Your task to perform on an android device: Go to eBay Image 0: 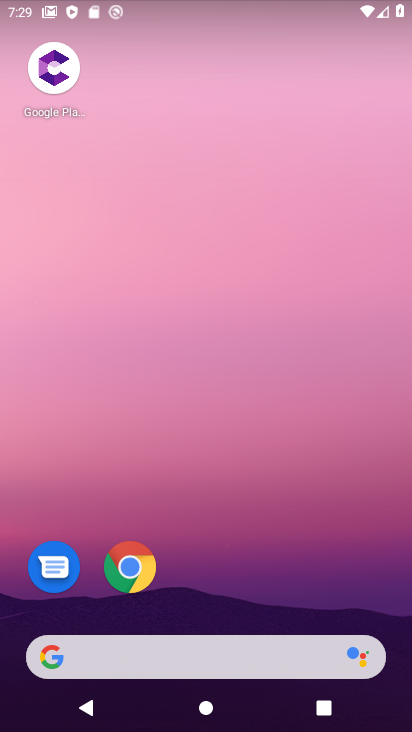
Step 0: click (125, 567)
Your task to perform on an android device: Go to eBay Image 1: 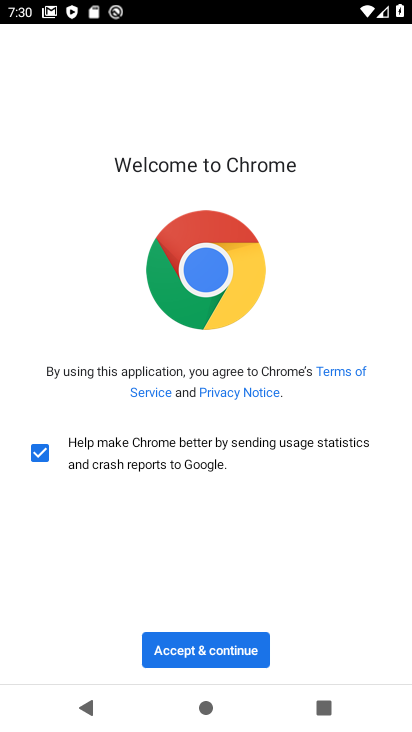
Step 1: click (195, 659)
Your task to perform on an android device: Go to eBay Image 2: 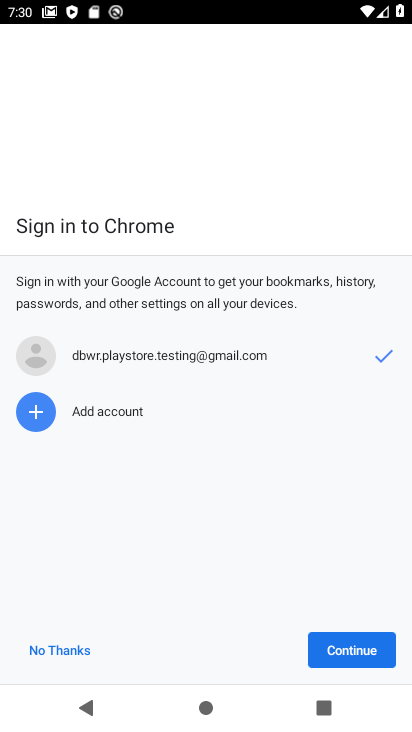
Step 2: click (351, 652)
Your task to perform on an android device: Go to eBay Image 3: 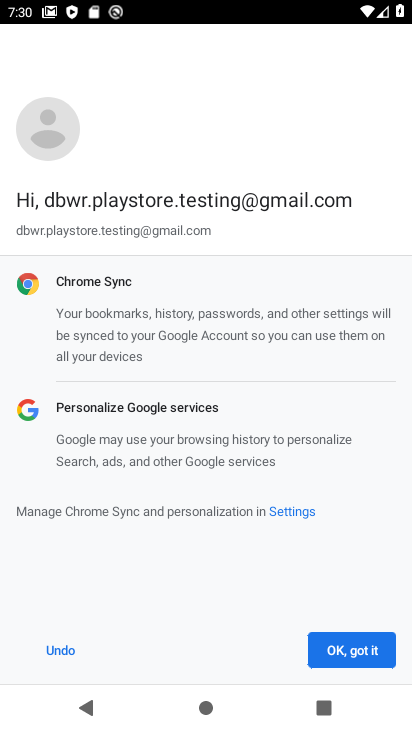
Step 3: click (351, 652)
Your task to perform on an android device: Go to eBay Image 4: 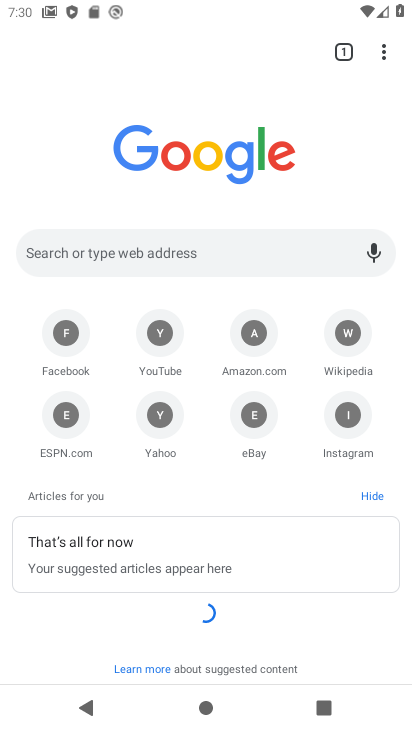
Step 4: click (232, 255)
Your task to perform on an android device: Go to eBay Image 5: 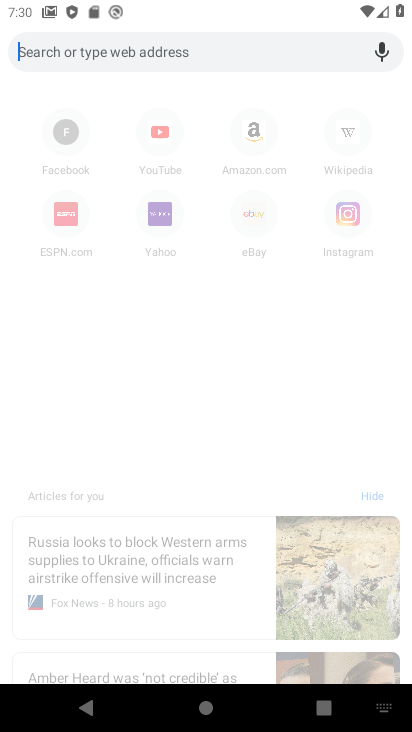
Step 5: type "eBay"
Your task to perform on an android device: Go to eBay Image 6: 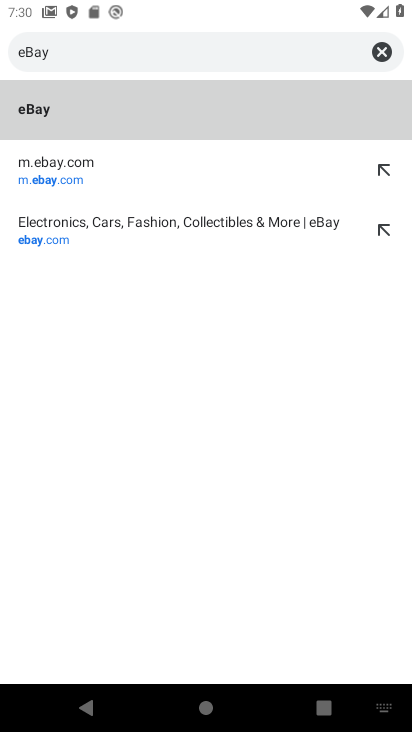
Step 6: click (81, 125)
Your task to perform on an android device: Go to eBay Image 7: 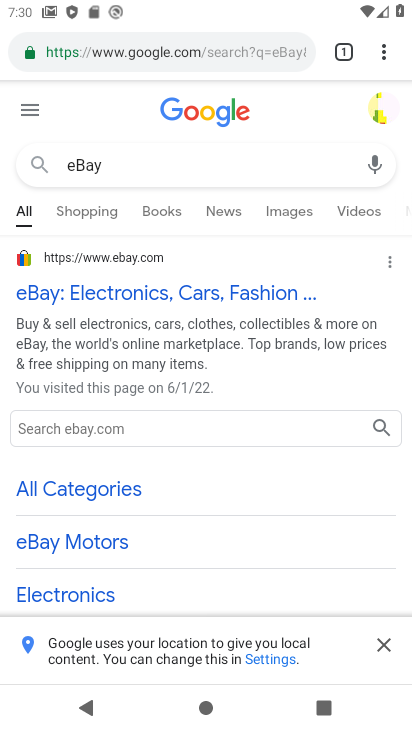
Step 7: click (95, 291)
Your task to perform on an android device: Go to eBay Image 8: 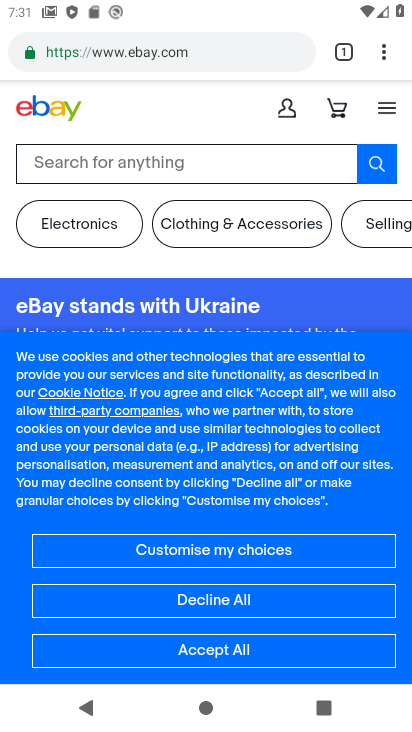
Step 8: click (229, 652)
Your task to perform on an android device: Go to eBay Image 9: 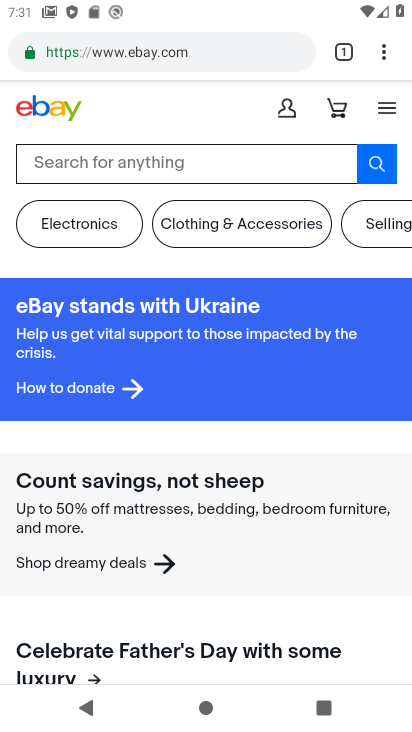
Step 9: task complete